Your task to perform on an android device: toggle javascript in the chrome app Image 0: 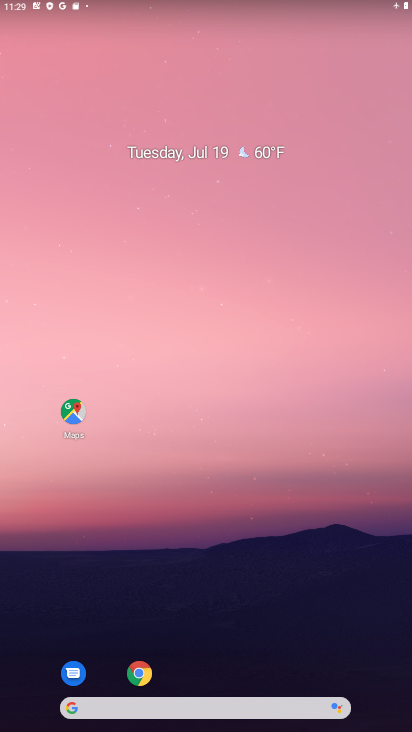
Step 0: click (137, 675)
Your task to perform on an android device: toggle javascript in the chrome app Image 1: 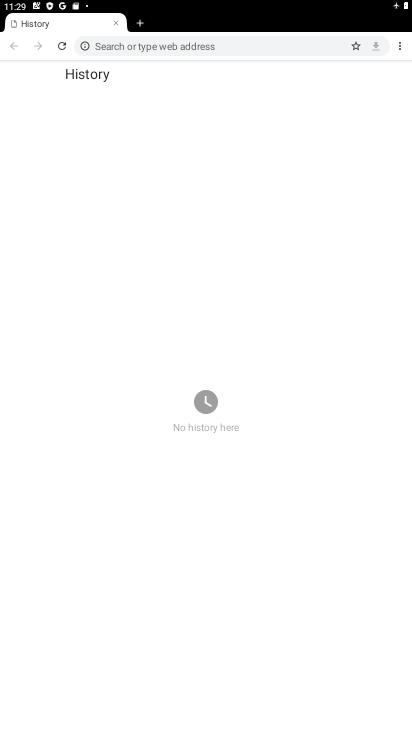
Step 1: click (401, 46)
Your task to perform on an android device: toggle javascript in the chrome app Image 2: 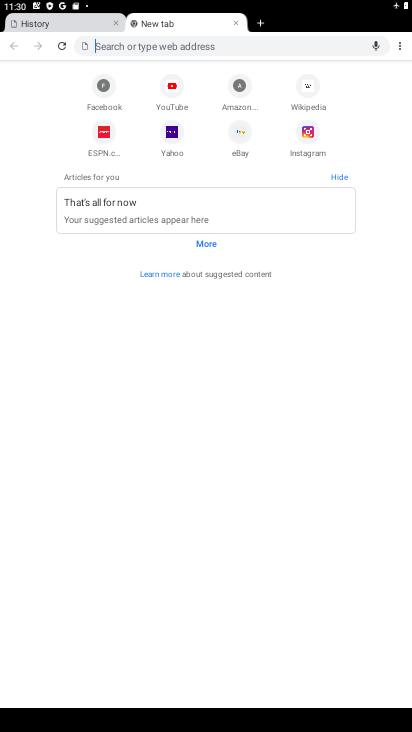
Step 2: click (400, 46)
Your task to perform on an android device: toggle javascript in the chrome app Image 3: 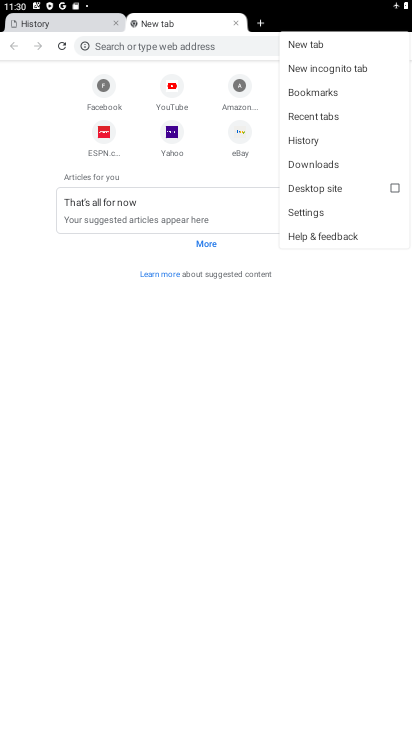
Step 3: click (306, 211)
Your task to perform on an android device: toggle javascript in the chrome app Image 4: 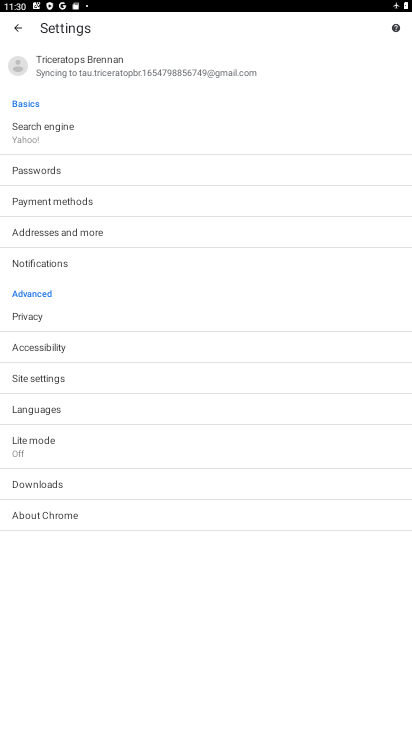
Step 4: click (32, 372)
Your task to perform on an android device: toggle javascript in the chrome app Image 5: 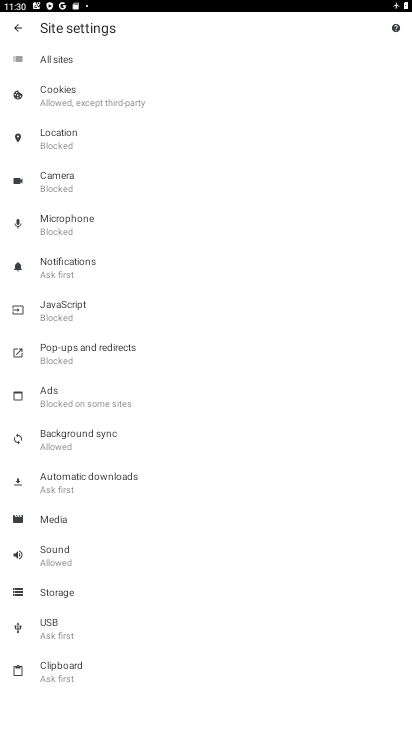
Step 5: click (65, 294)
Your task to perform on an android device: toggle javascript in the chrome app Image 6: 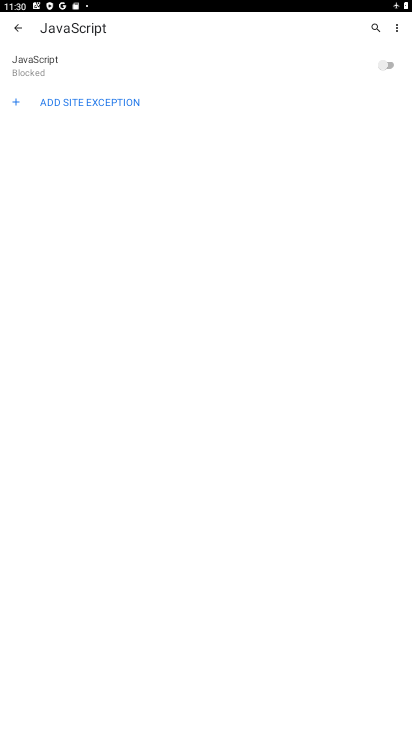
Step 6: click (391, 66)
Your task to perform on an android device: toggle javascript in the chrome app Image 7: 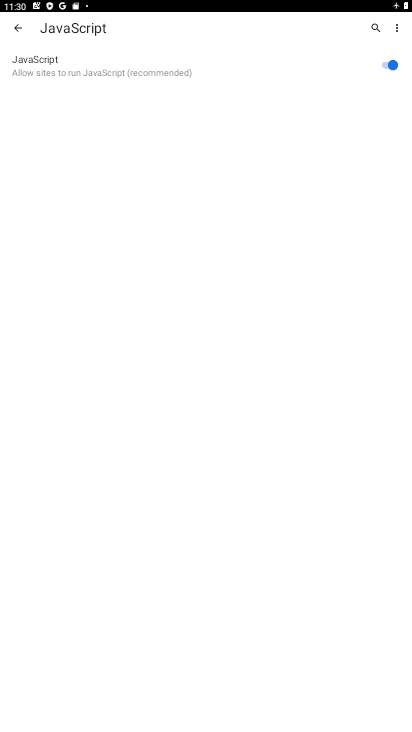
Step 7: task complete